Your task to perform on an android device: set an alarm Image 0: 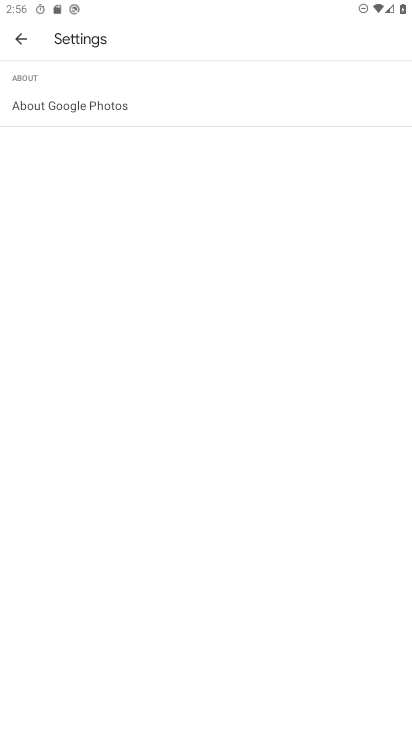
Step 0: press home button
Your task to perform on an android device: set an alarm Image 1: 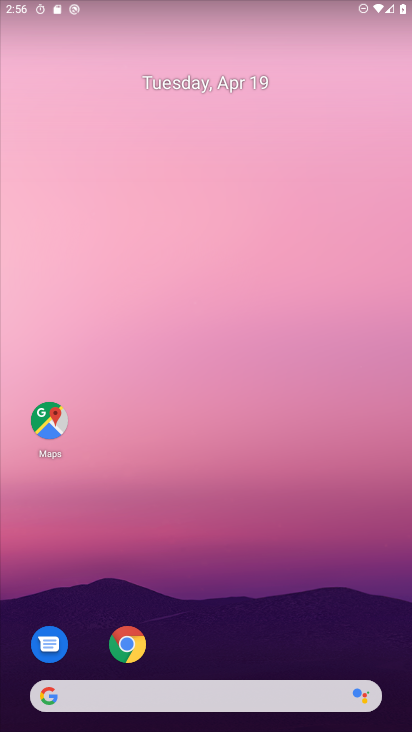
Step 1: drag from (215, 613) to (244, 244)
Your task to perform on an android device: set an alarm Image 2: 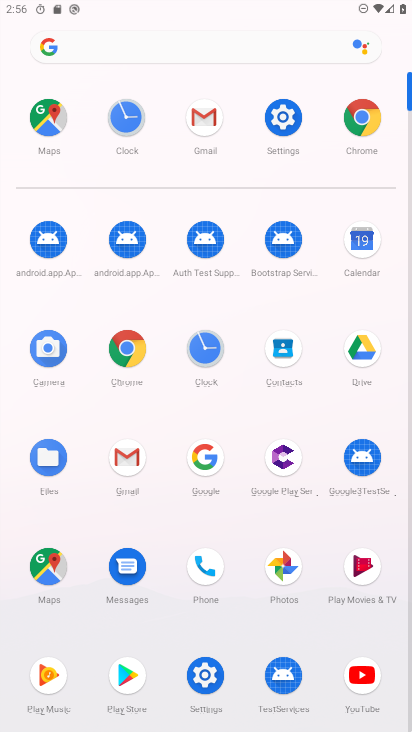
Step 2: click (207, 350)
Your task to perform on an android device: set an alarm Image 3: 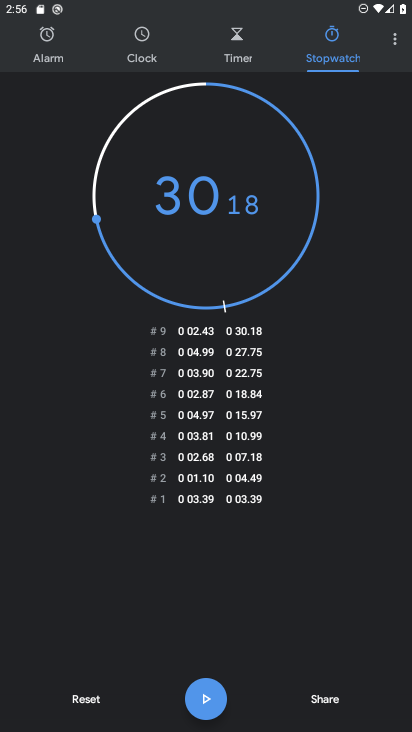
Step 3: click (57, 48)
Your task to perform on an android device: set an alarm Image 4: 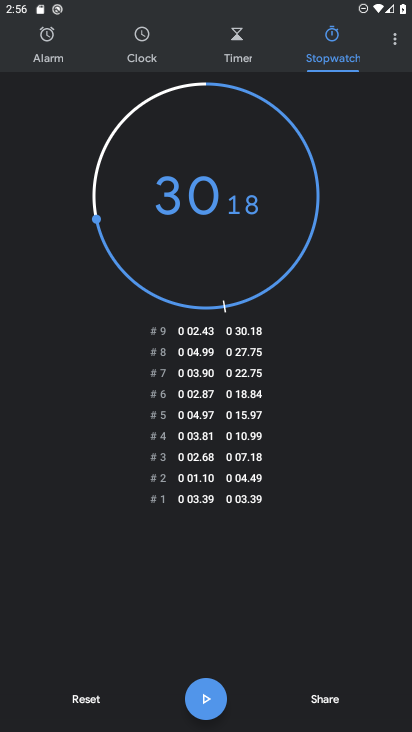
Step 4: click (44, 40)
Your task to perform on an android device: set an alarm Image 5: 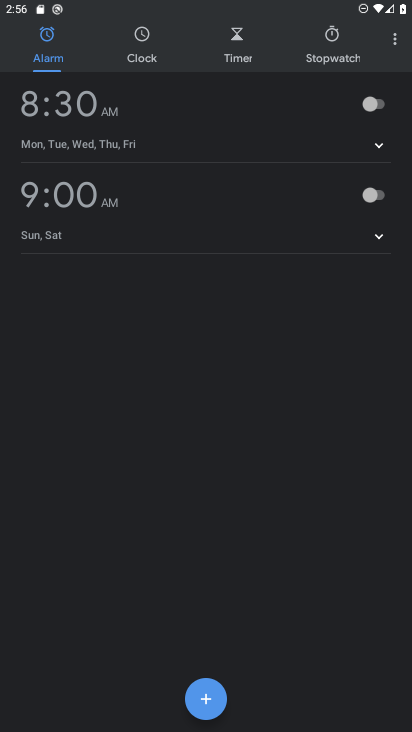
Step 5: click (203, 688)
Your task to perform on an android device: set an alarm Image 6: 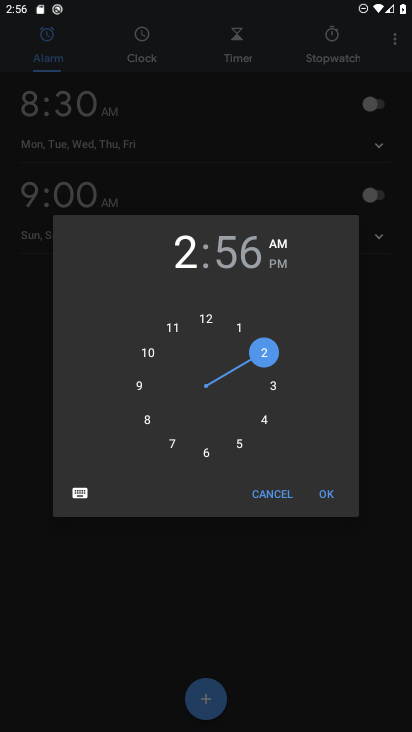
Step 6: click (326, 494)
Your task to perform on an android device: set an alarm Image 7: 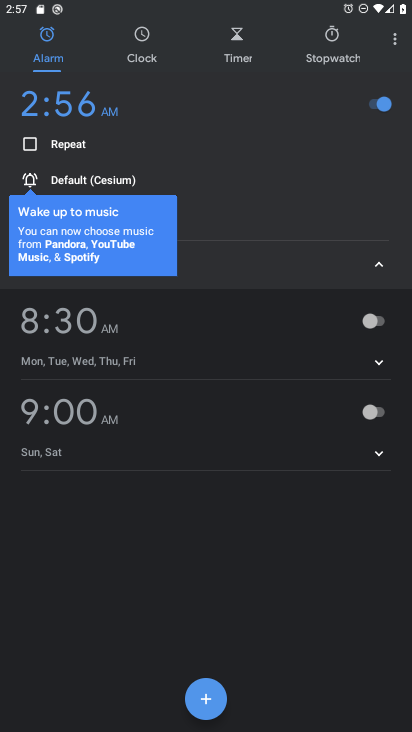
Step 7: click (387, 105)
Your task to perform on an android device: set an alarm Image 8: 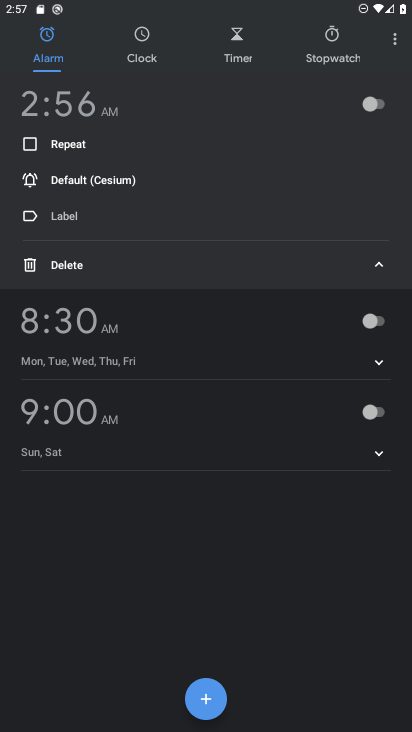
Step 8: click (394, 259)
Your task to perform on an android device: set an alarm Image 9: 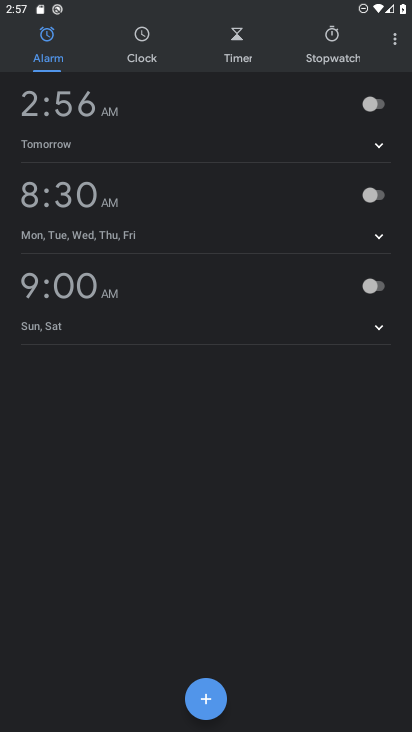
Step 9: task complete